Your task to perform on an android device: Do I have any events today? Image 0: 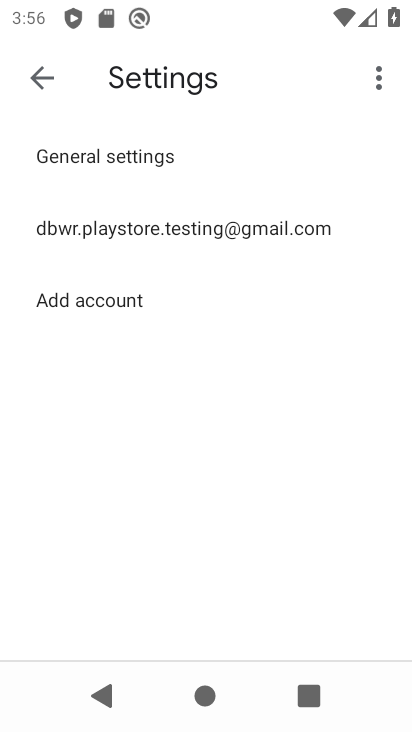
Step 0: press back button
Your task to perform on an android device: Do I have any events today? Image 1: 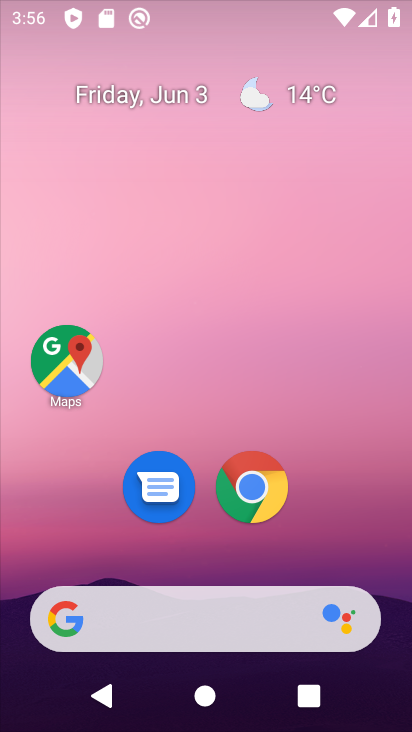
Step 1: drag from (186, 548) to (409, 724)
Your task to perform on an android device: Do I have any events today? Image 2: 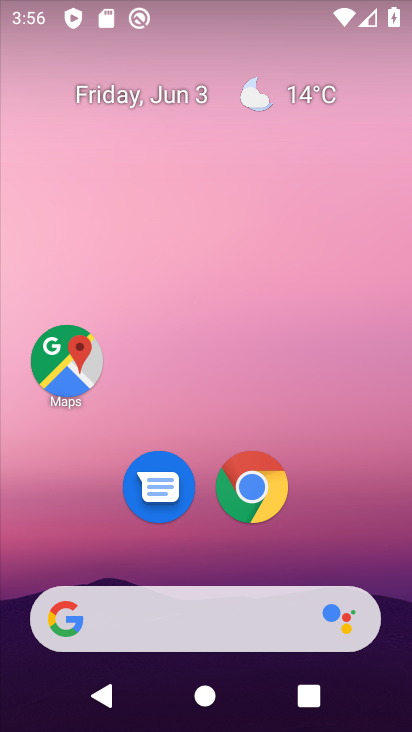
Step 2: drag from (188, 554) to (282, 90)
Your task to perform on an android device: Do I have any events today? Image 3: 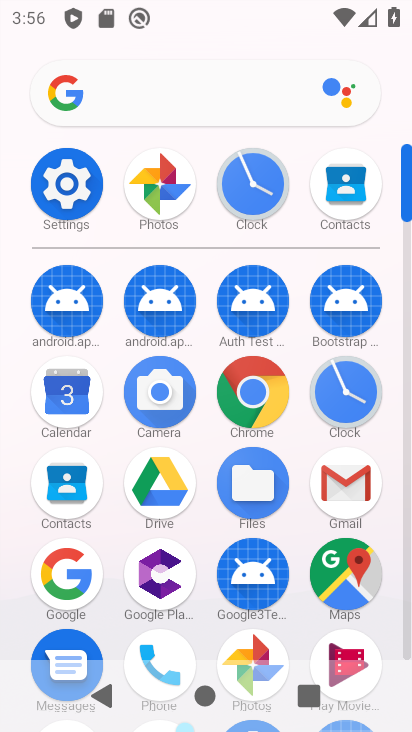
Step 3: click (49, 399)
Your task to perform on an android device: Do I have any events today? Image 4: 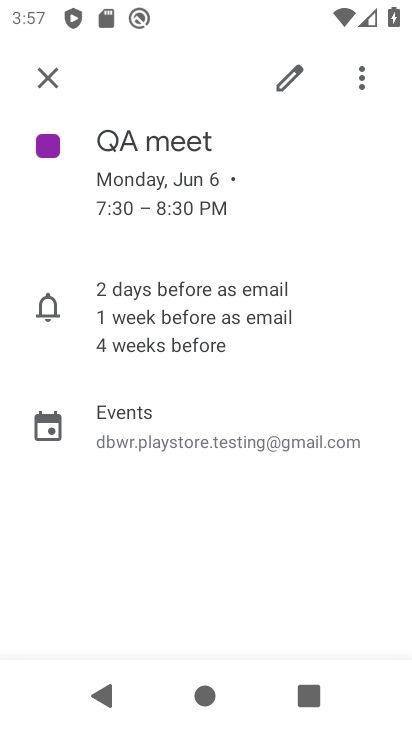
Step 4: click (43, 66)
Your task to perform on an android device: Do I have any events today? Image 5: 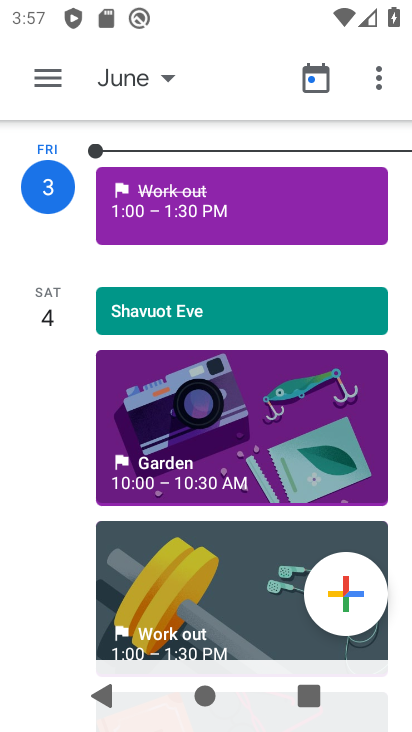
Step 5: click (239, 210)
Your task to perform on an android device: Do I have any events today? Image 6: 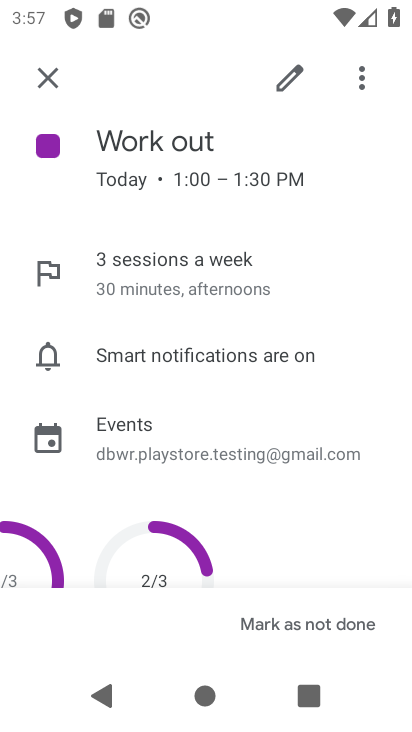
Step 6: task complete